Your task to perform on an android device: Go to CNN.com Image 0: 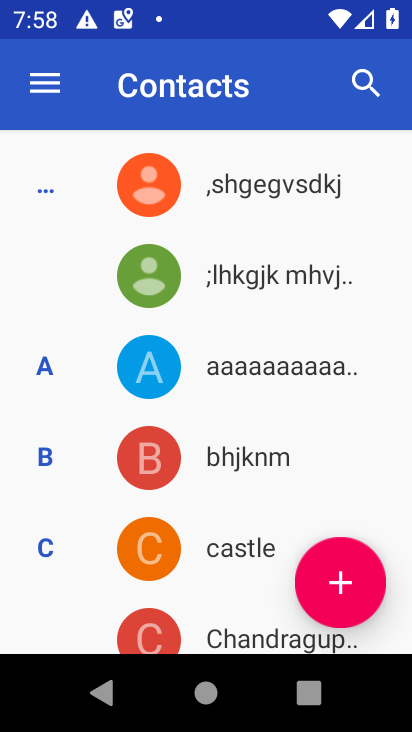
Step 0: press home button
Your task to perform on an android device: Go to CNN.com Image 1: 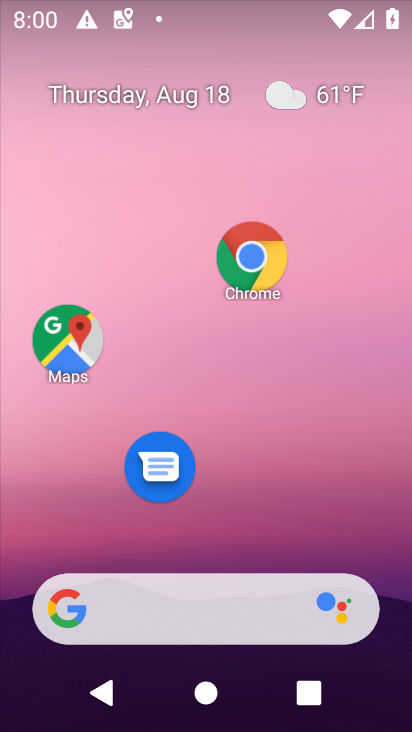
Step 1: click (217, 620)
Your task to perform on an android device: Go to CNN.com Image 2: 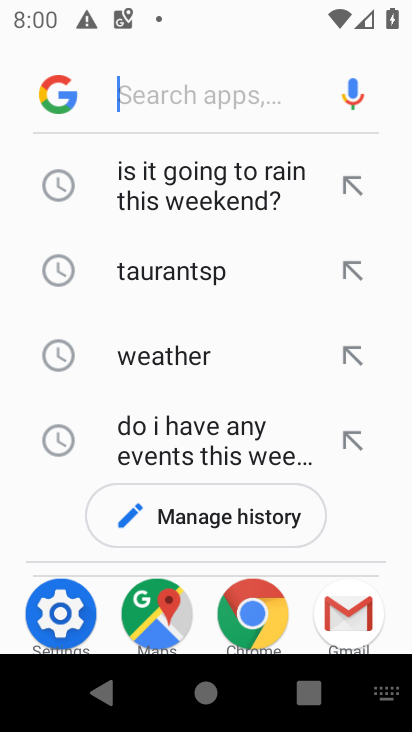
Step 2: type "CNN.com"
Your task to perform on an android device: Go to CNN.com Image 3: 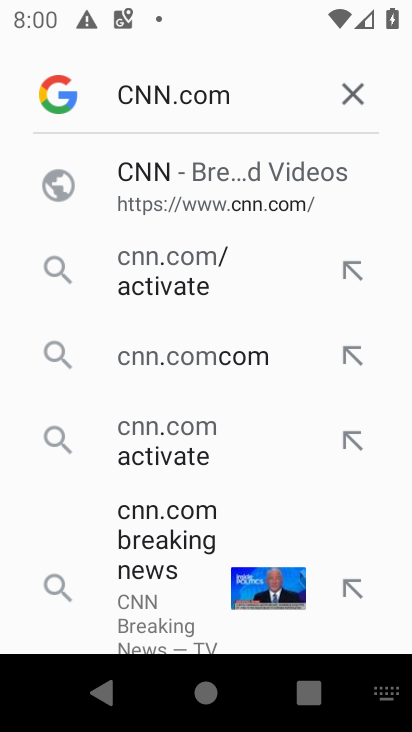
Step 3: press enter
Your task to perform on an android device: Go to CNN.com Image 4: 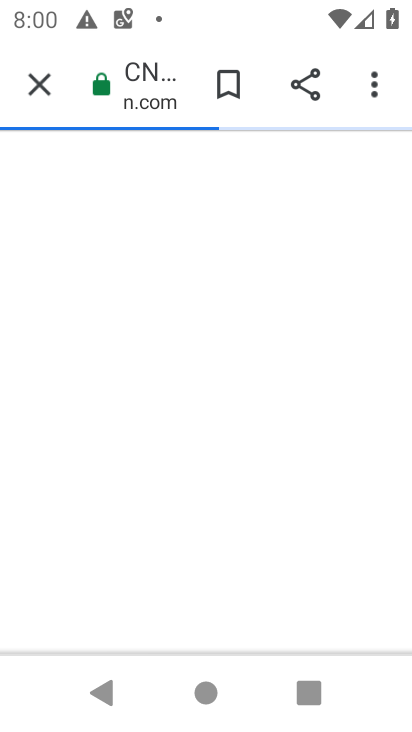
Step 4: task complete